Your task to perform on an android device: toggle pop-ups in chrome Image 0: 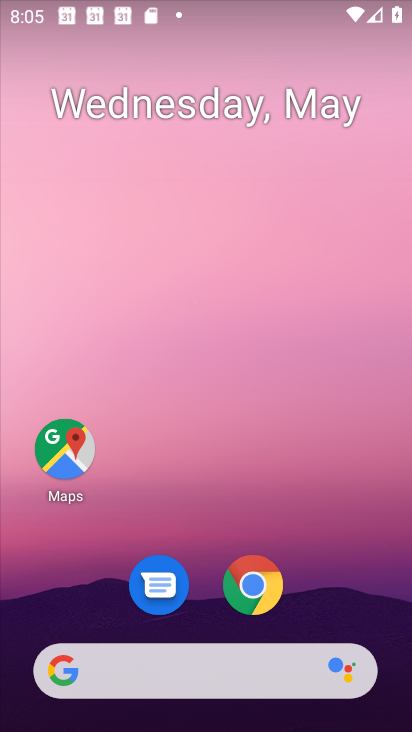
Step 0: click (270, 582)
Your task to perform on an android device: toggle pop-ups in chrome Image 1: 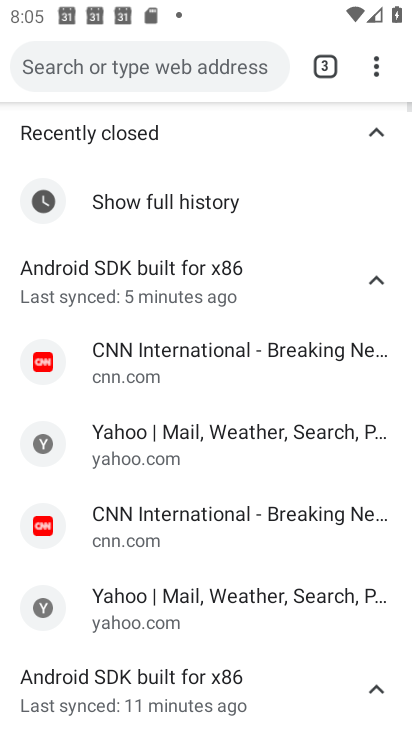
Step 1: click (377, 69)
Your task to perform on an android device: toggle pop-ups in chrome Image 2: 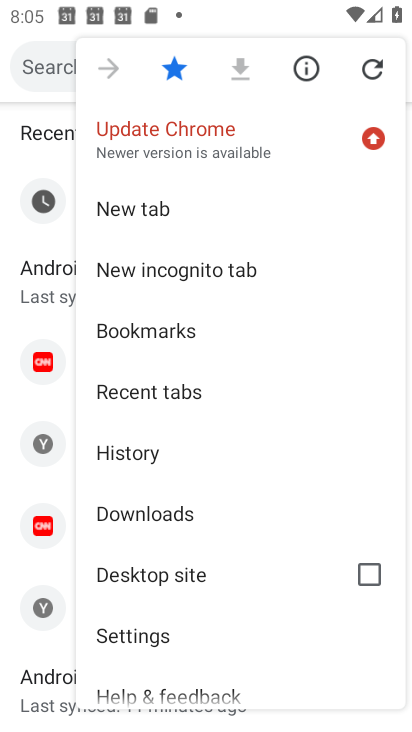
Step 2: click (188, 630)
Your task to perform on an android device: toggle pop-ups in chrome Image 3: 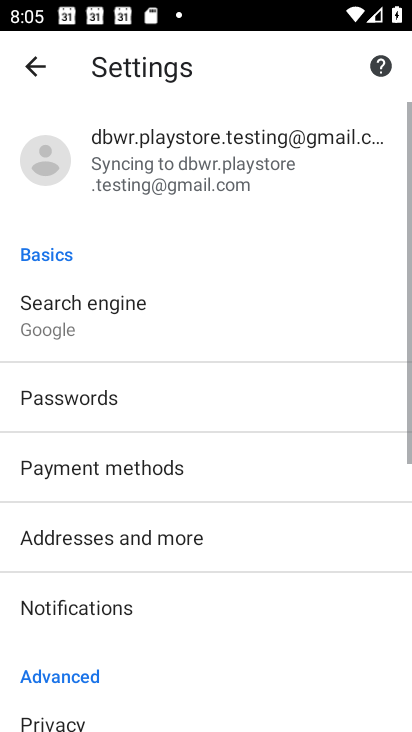
Step 3: drag from (221, 574) to (283, 233)
Your task to perform on an android device: toggle pop-ups in chrome Image 4: 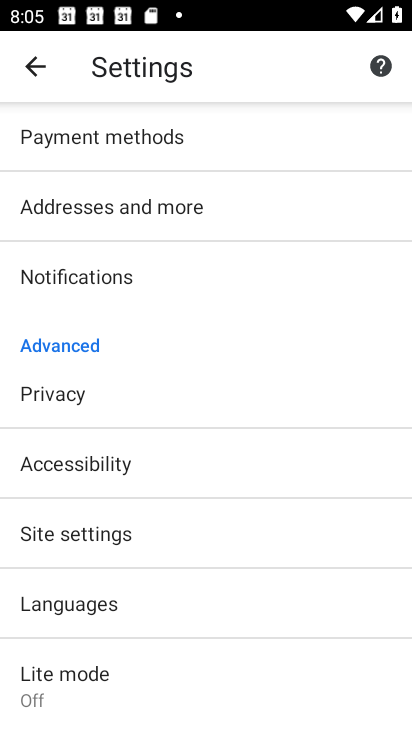
Step 4: click (155, 527)
Your task to perform on an android device: toggle pop-ups in chrome Image 5: 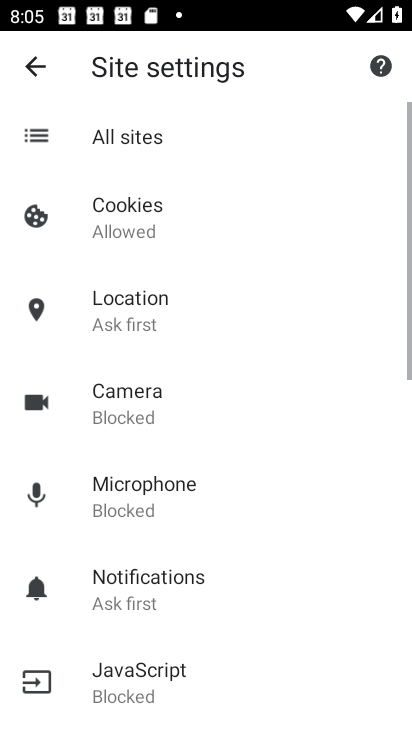
Step 5: drag from (277, 499) to (262, 164)
Your task to perform on an android device: toggle pop-ups in chrome Image 6: 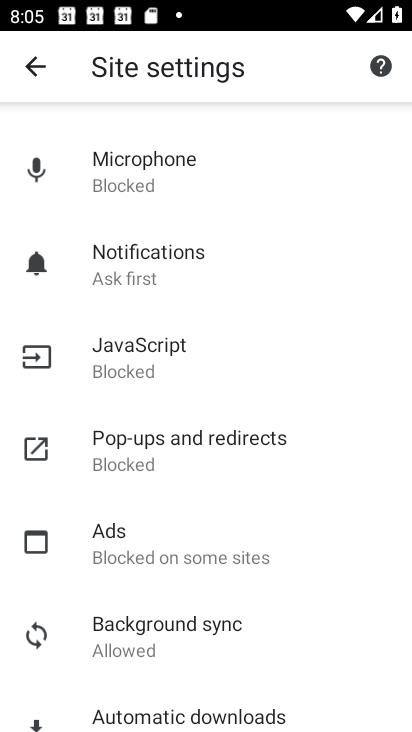
Step 6: click (228, 443)
Your task to perform on an android device: toggle pop-ups in chrome Image 7: 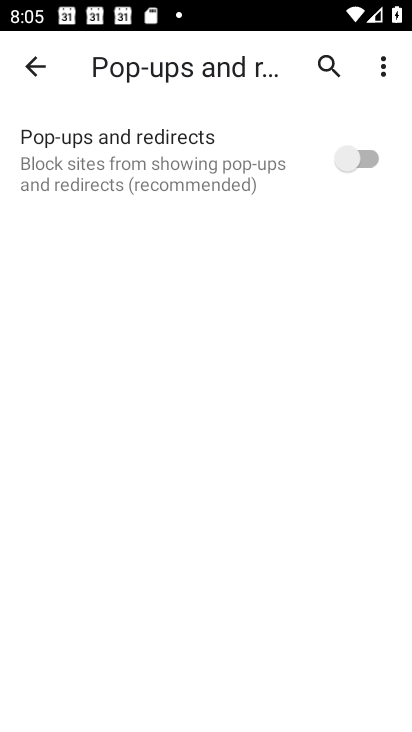
Step 7: click (352, 150)
Your task to perform on an android device: toggle pop-ups in chrome Image 8: 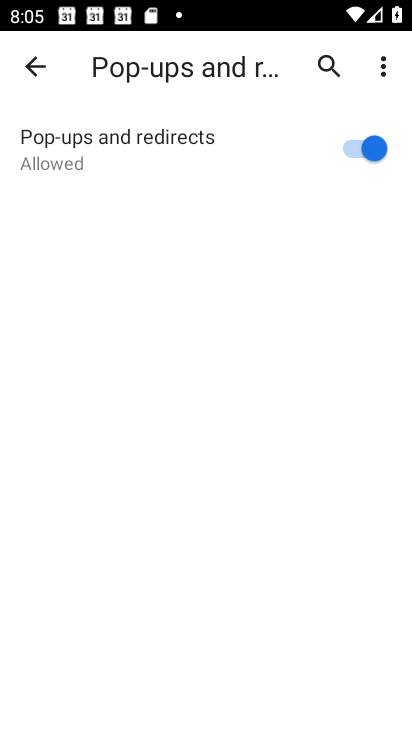
Step 8: task complete